Your task to perform on an android device: change timer sound Image 0: 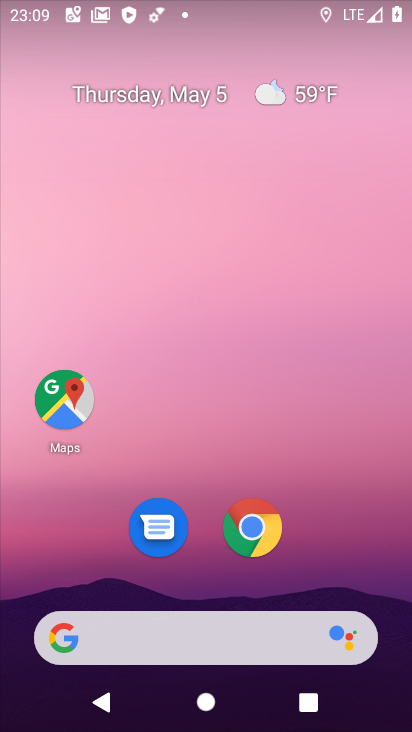
Step 0: drag from (213, 589) to (281, 3)
Your task to perform on an android device: change timer sound Image 1: 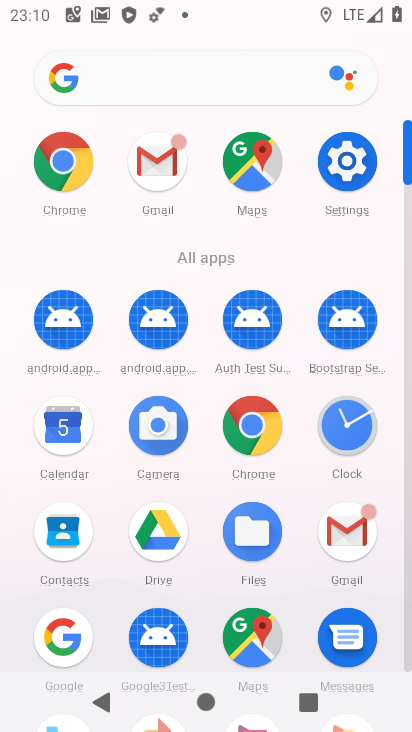
Step 1: click (350, 439)
Your task to perform on an android device: change timer sound Image 2: 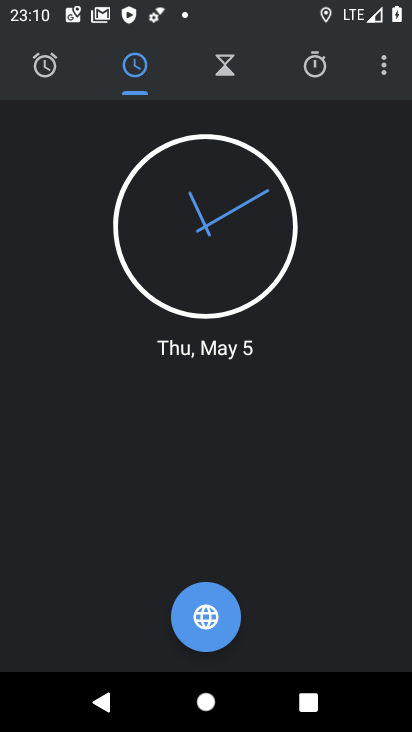
Step 2: click (390, 81)
Your task to perform on an android device: change timer sound Image 3: 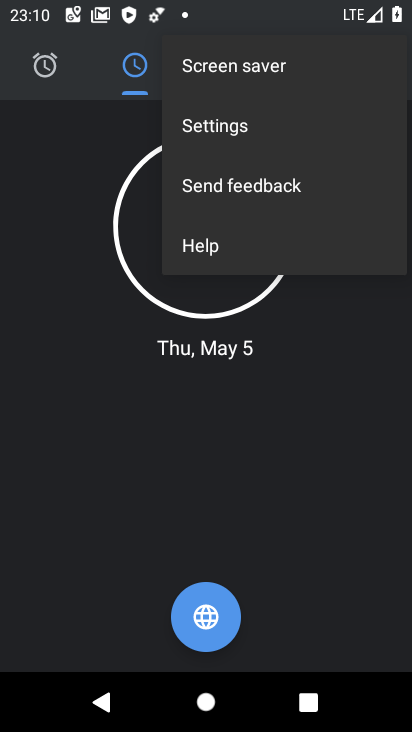
Step 3: click (231, 139)
Your task to perform on an android device: change timer sound Image 4: 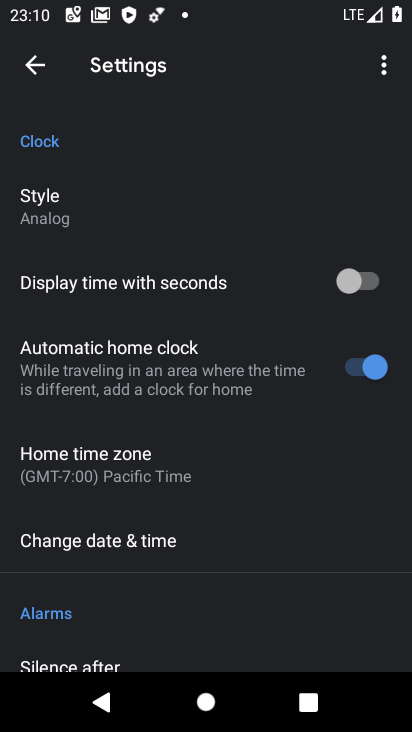
Step 4: drag from (111, 543) to (196, 108)
Your task to perform on an android device: change timer sound Image 5: 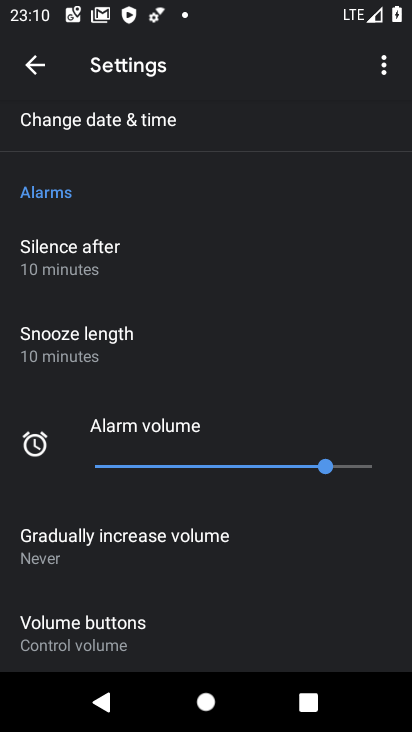
Step 5: drag from (124, 559) to (212, 229)
Your task to perform on an android device: change timer sound Image 6: 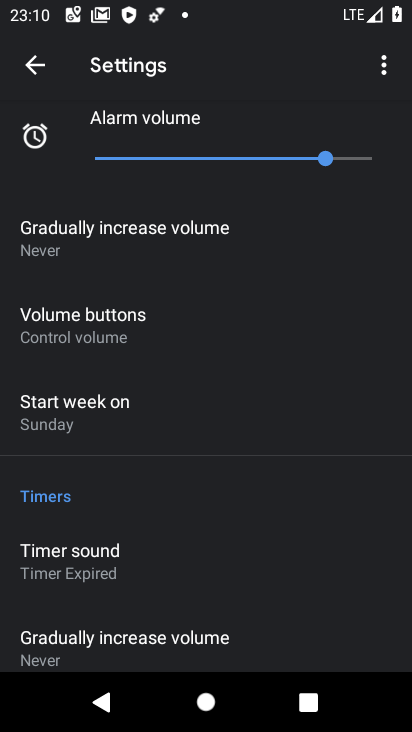
Step 6: click (105, 555)
Your task to perform on an android device: change timer sound Image 7: 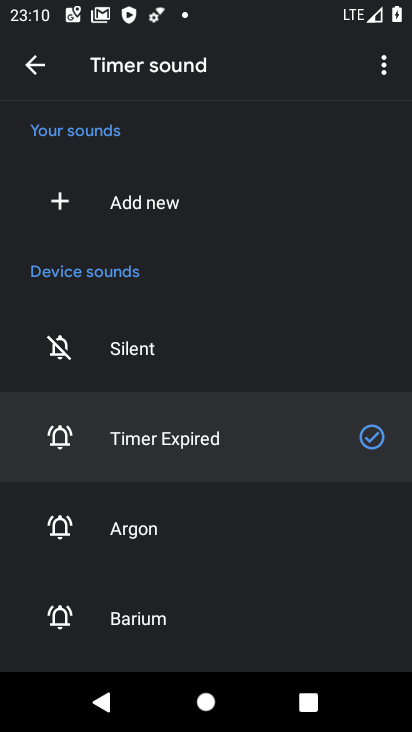
Step 7: click (139, 612)
Your task to perform on an android device: change timer sound Image 8: 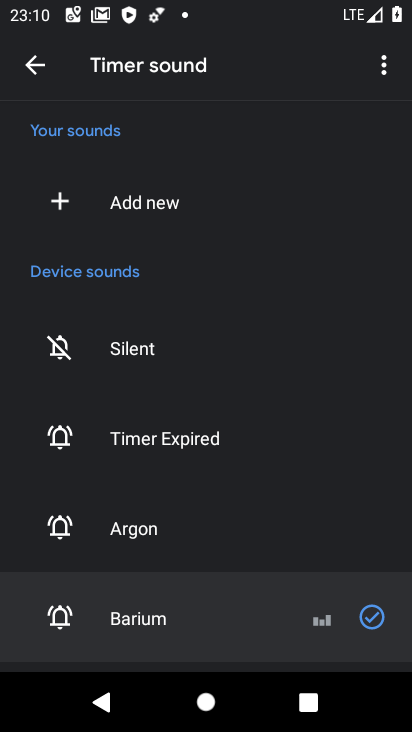
Step 8: task complete